Your task to perform on an android device: open a new tab in the chrome app Image 0: 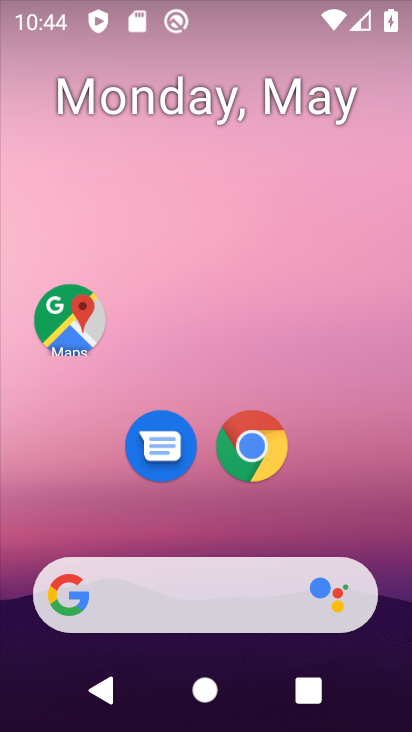
Step 0: click (266, 457)
Your task to perform on an android device: open a new tab in the chrome app Image 1: 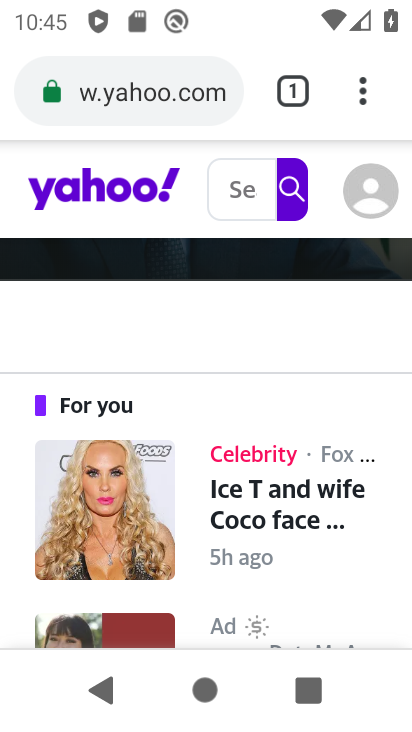
Step 1: task complete